Your task to perform on an android device: Open Youtube and go to "Your channel" Image 0: 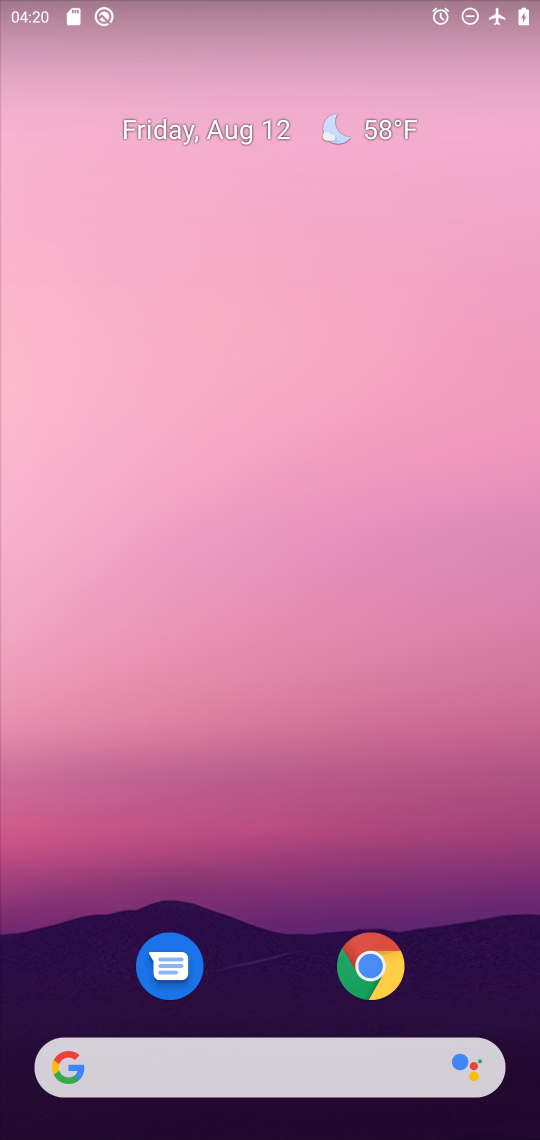
Step 0: drag from (229, 967) to (316, 161)
Your task to perform on an android device: Open Youtube and go to "Your channel" Image 1: 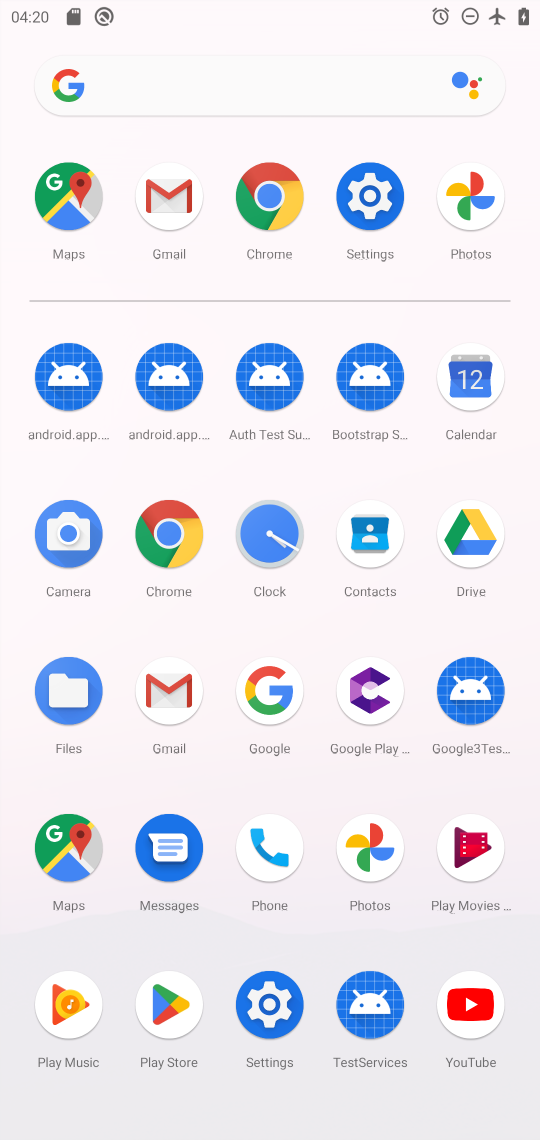
Step 1: click (478, 996)
Your task to perform on an android device: Open Youtube and go to "Your channel" Image 2: 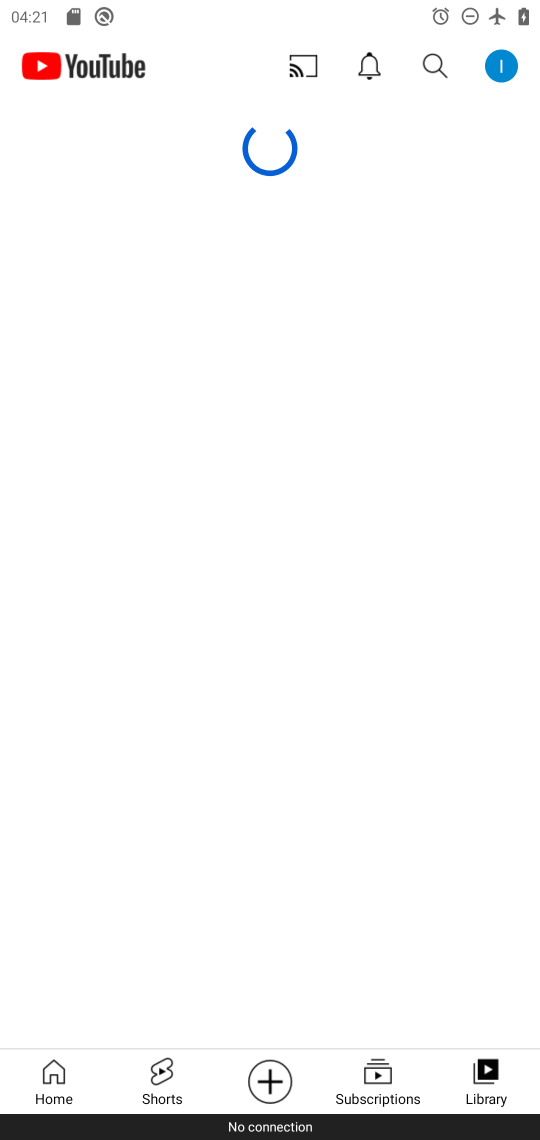
Step 2: click (486, 52)
Your task to perform on an android device: Open Youtube and go to "Your channel" Image 3: 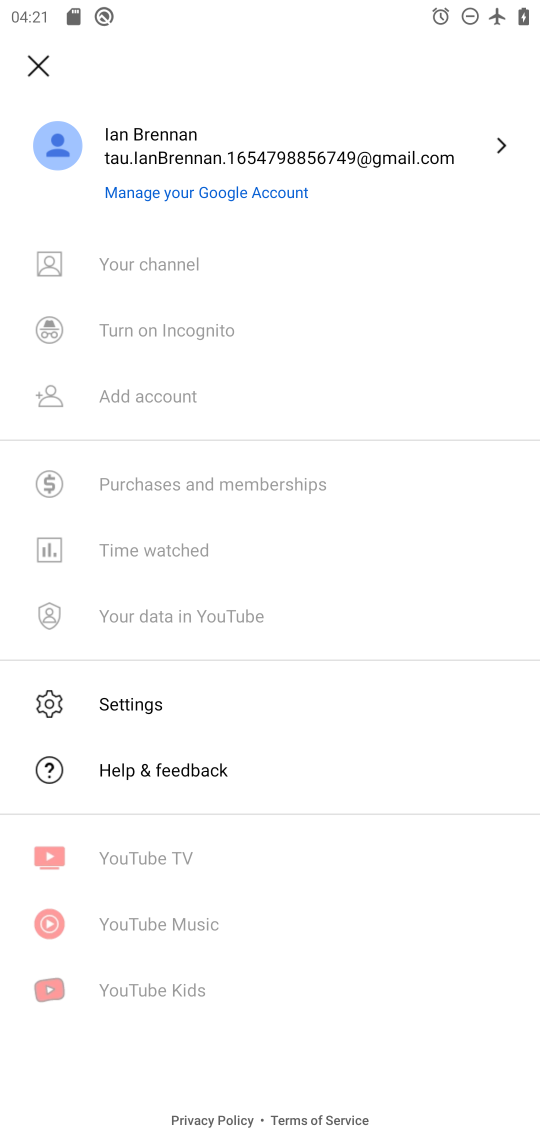
Step 3: click (195, 277)
Your task to perform on an android device: Open Youtube and go to "Your channel" Image 4: 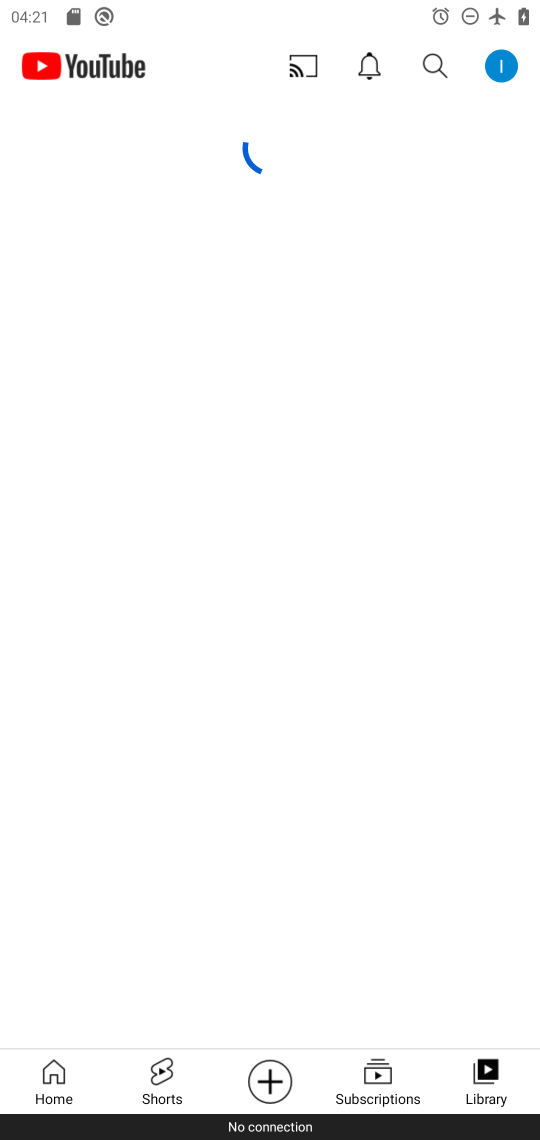
Step 4: task complete